Your task to perform on an android device: uninstall "Indeed Job Search" Image 0: 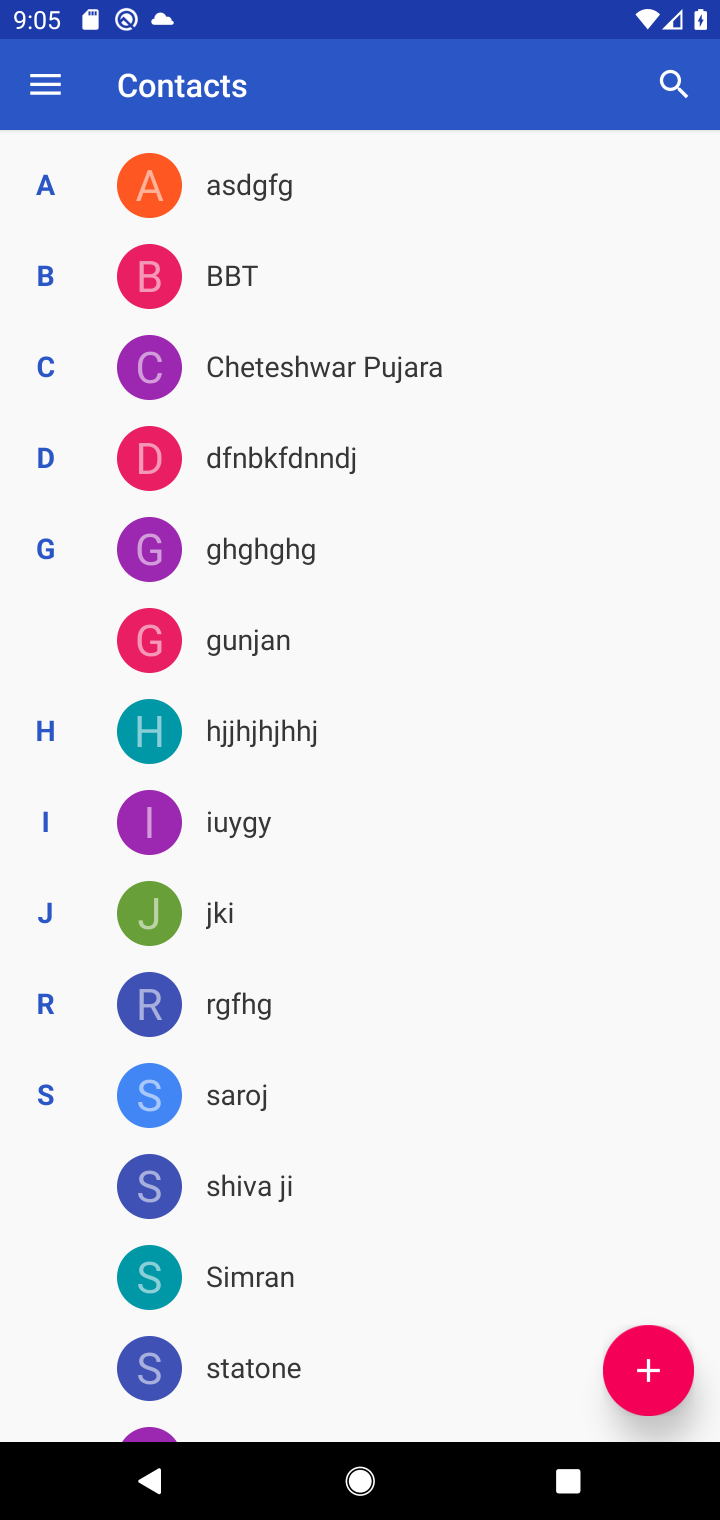
Step 0: press home button
Your task to perform on an android device: uninstall "Indeed Job Search" Image 1: 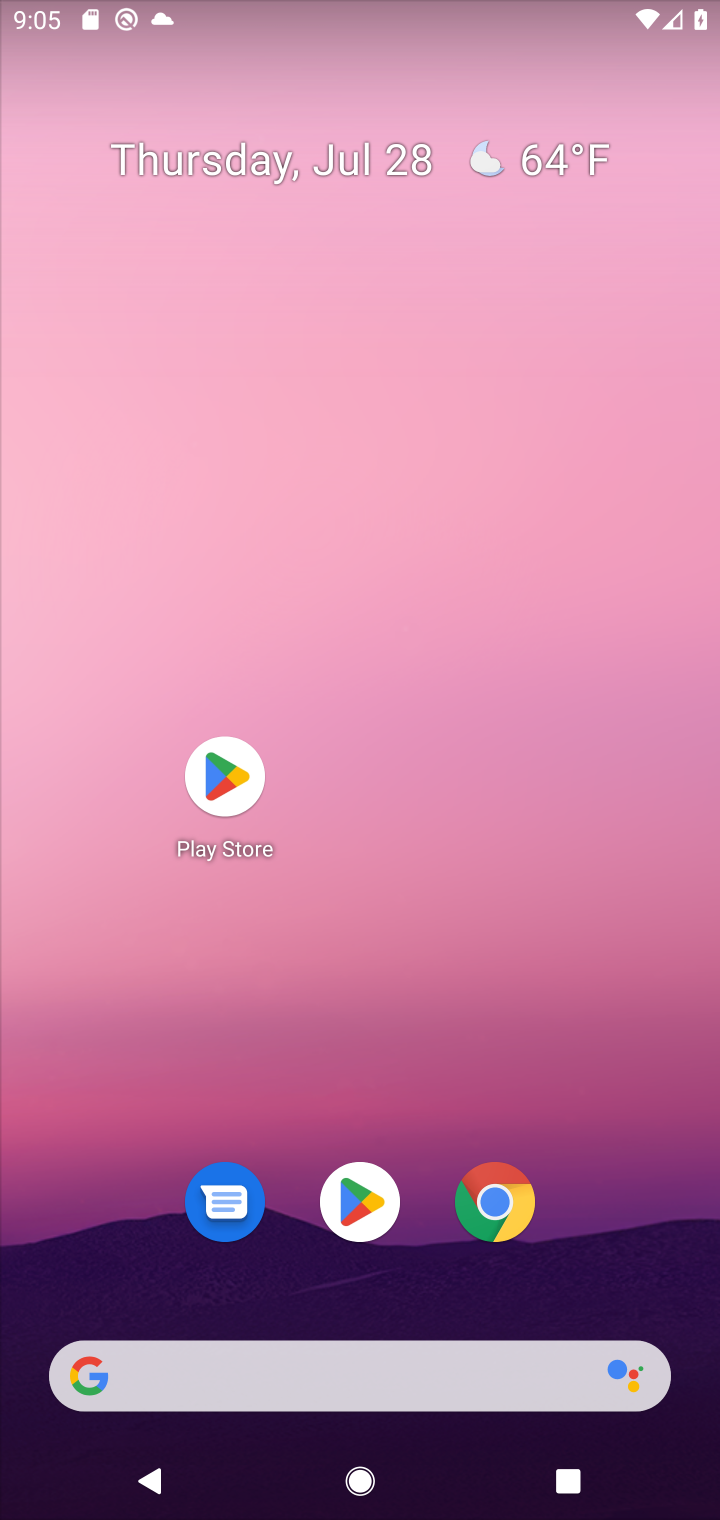
Step 1: click (350, 1214)
Your task to perform on an android device: uninstall "Indeed Job Search" Image 2: 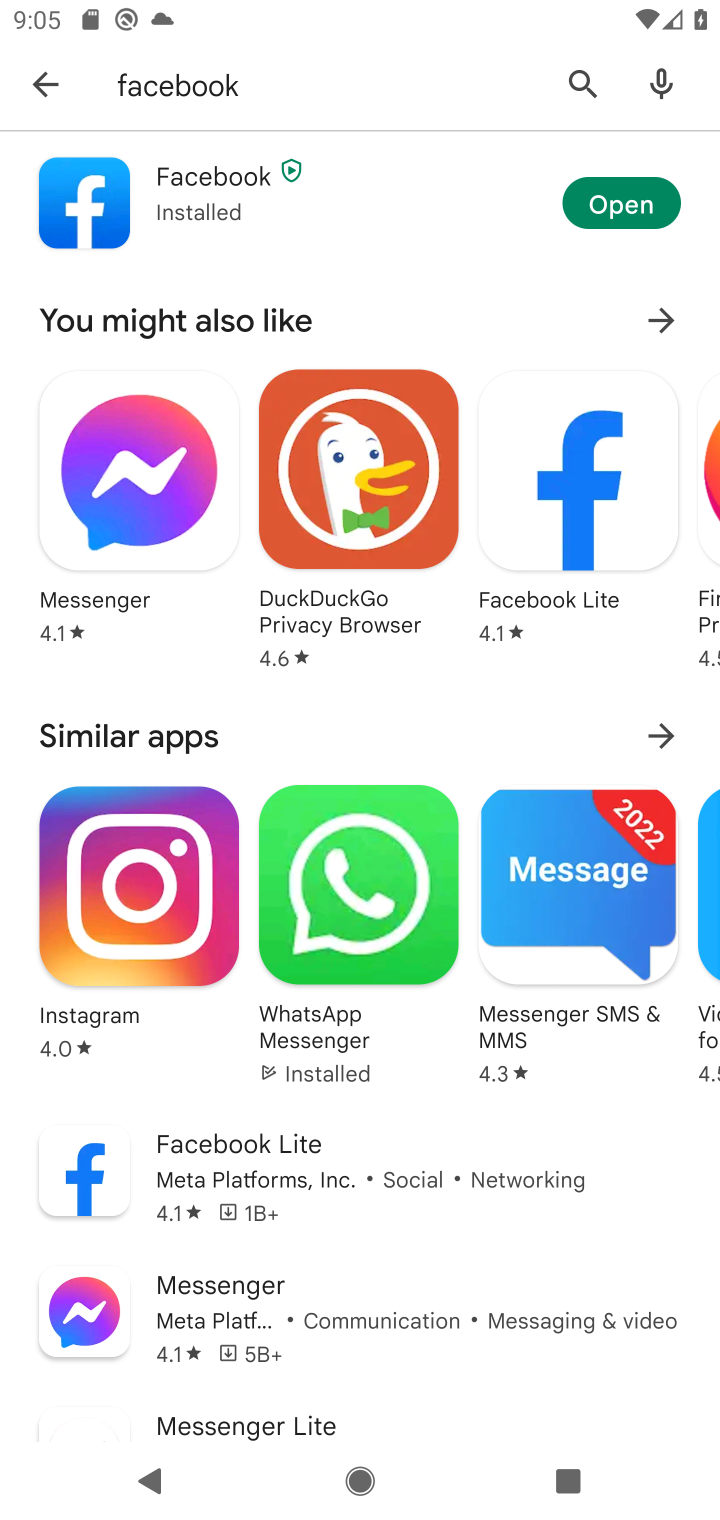
Step 2: click (570, 78)
Your task to perform on an android device: uninstall "Indeed Job Search" Image 3: 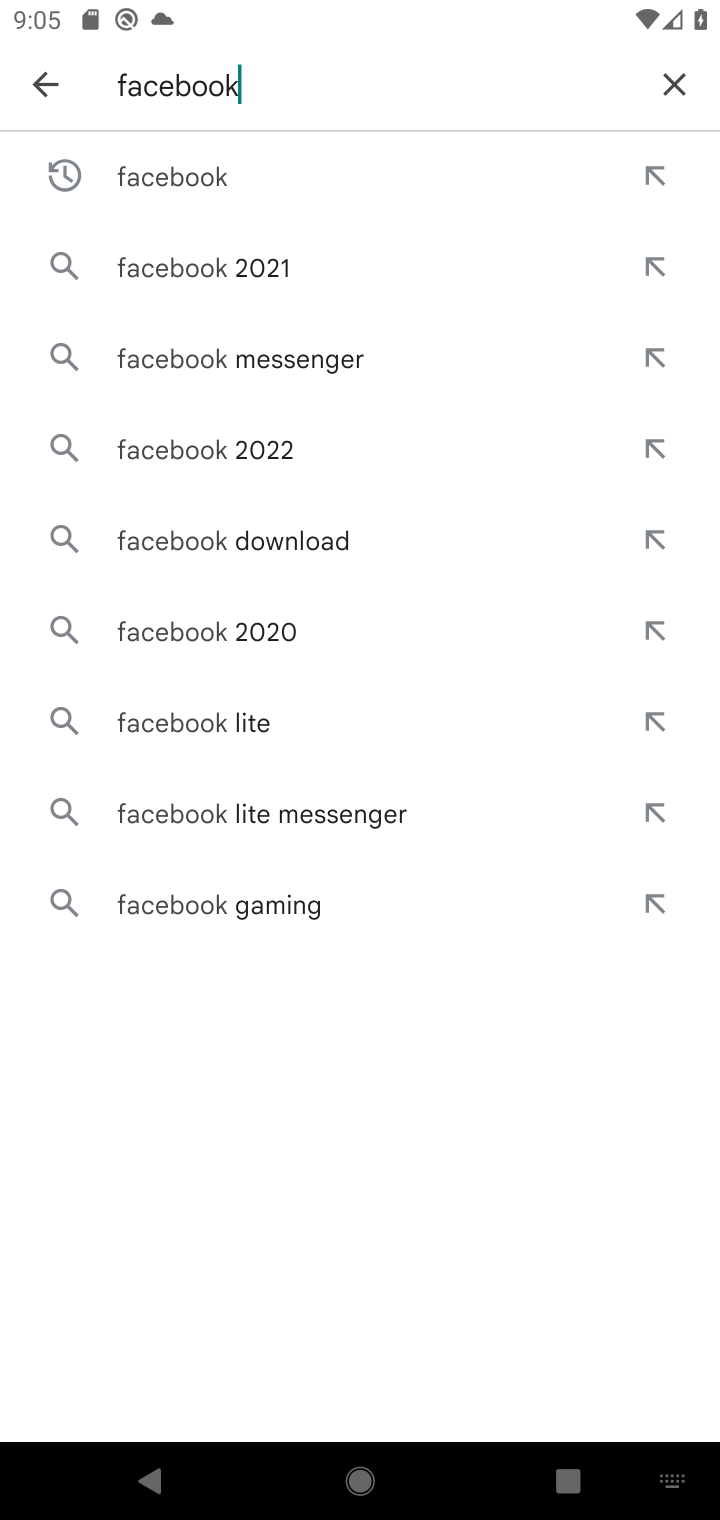
Step 3: click (668, 83)
Your task to perform on an android device: uninstall "Indeed Job Search" Image 4: 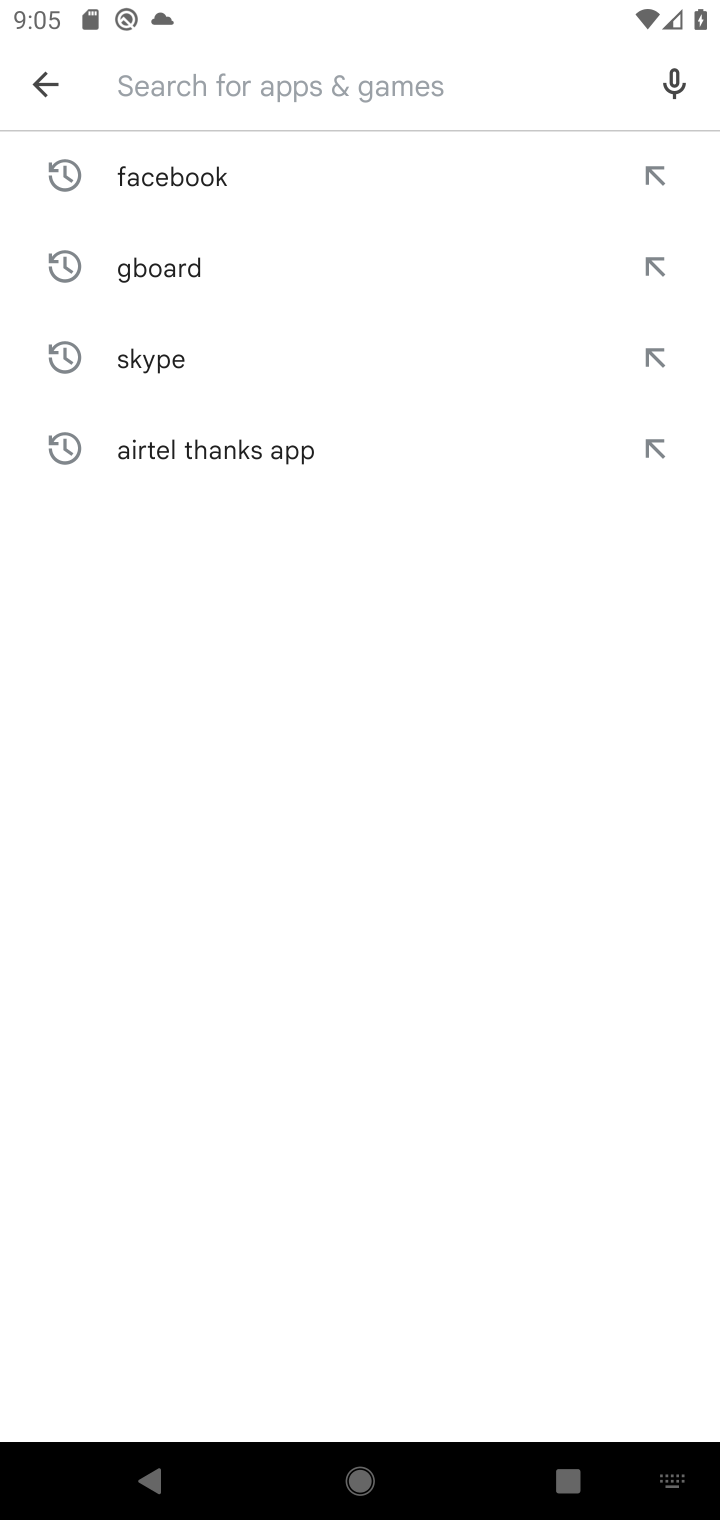
Step 4: click (331, 83)
Your task to perform on an android device: uninstall "Indeed Job Search" Image 5: 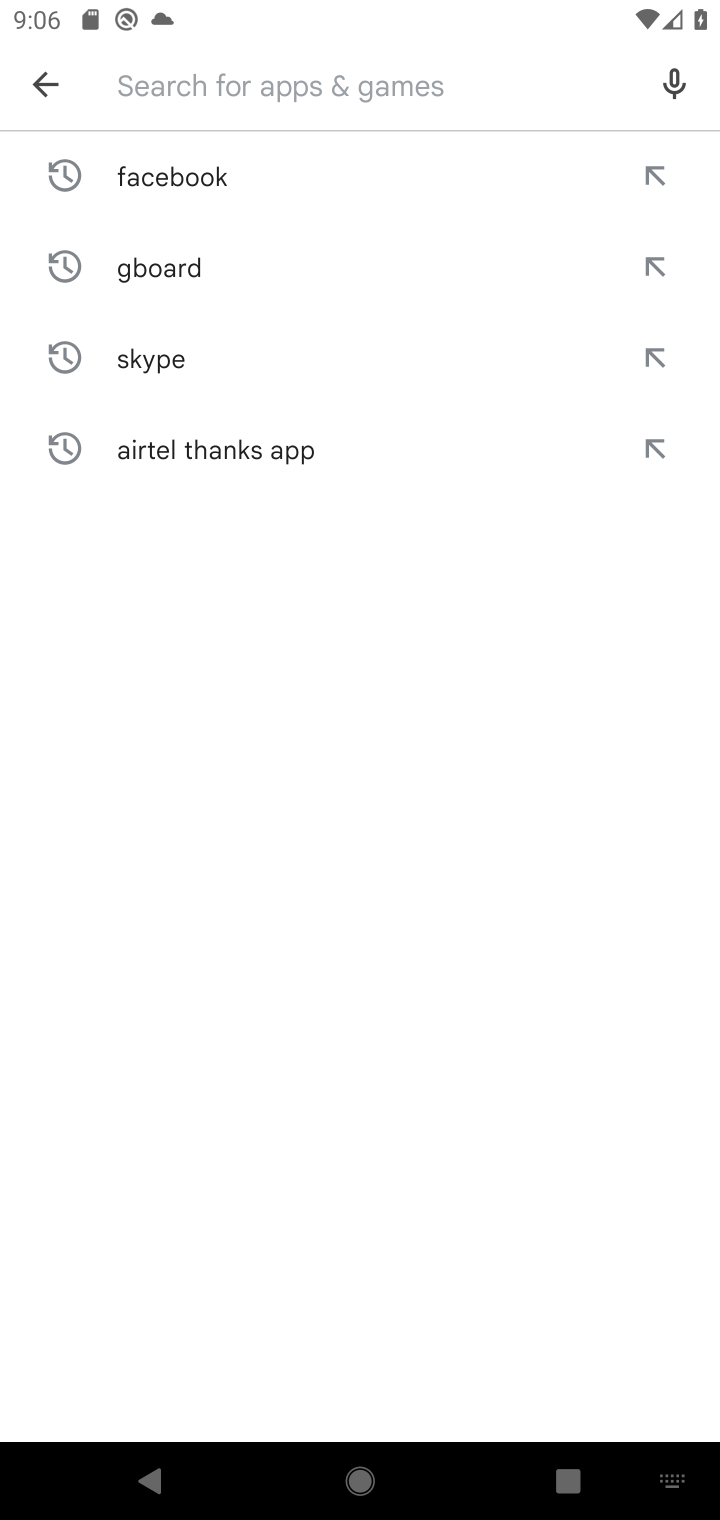
Step 5: type "indeed job search"
Your task to perform on an android device: uninstall "Indeed Job Search" Image 6: 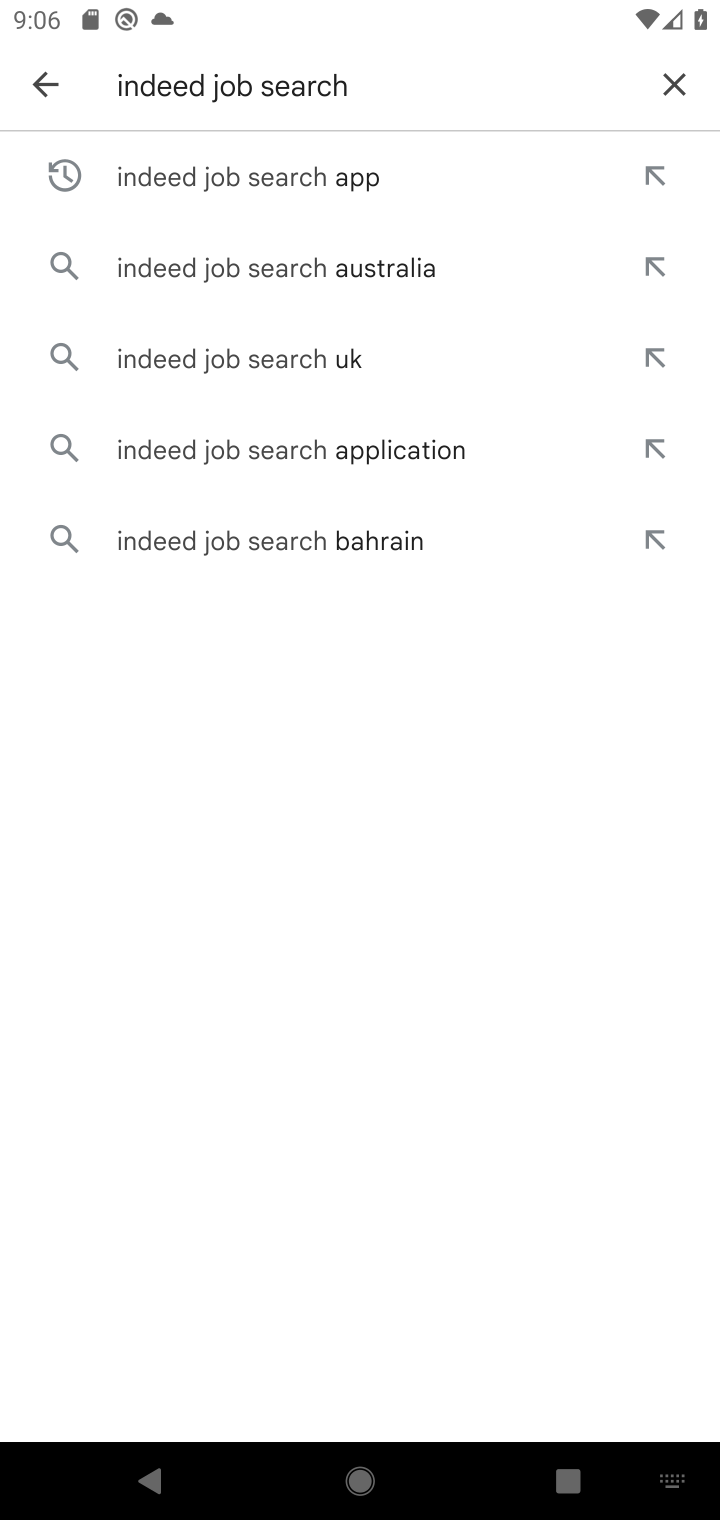
Step 6: click (287, 192)
Your task to perform on an android device: uninstall "Indeed Job Search" Image 7: 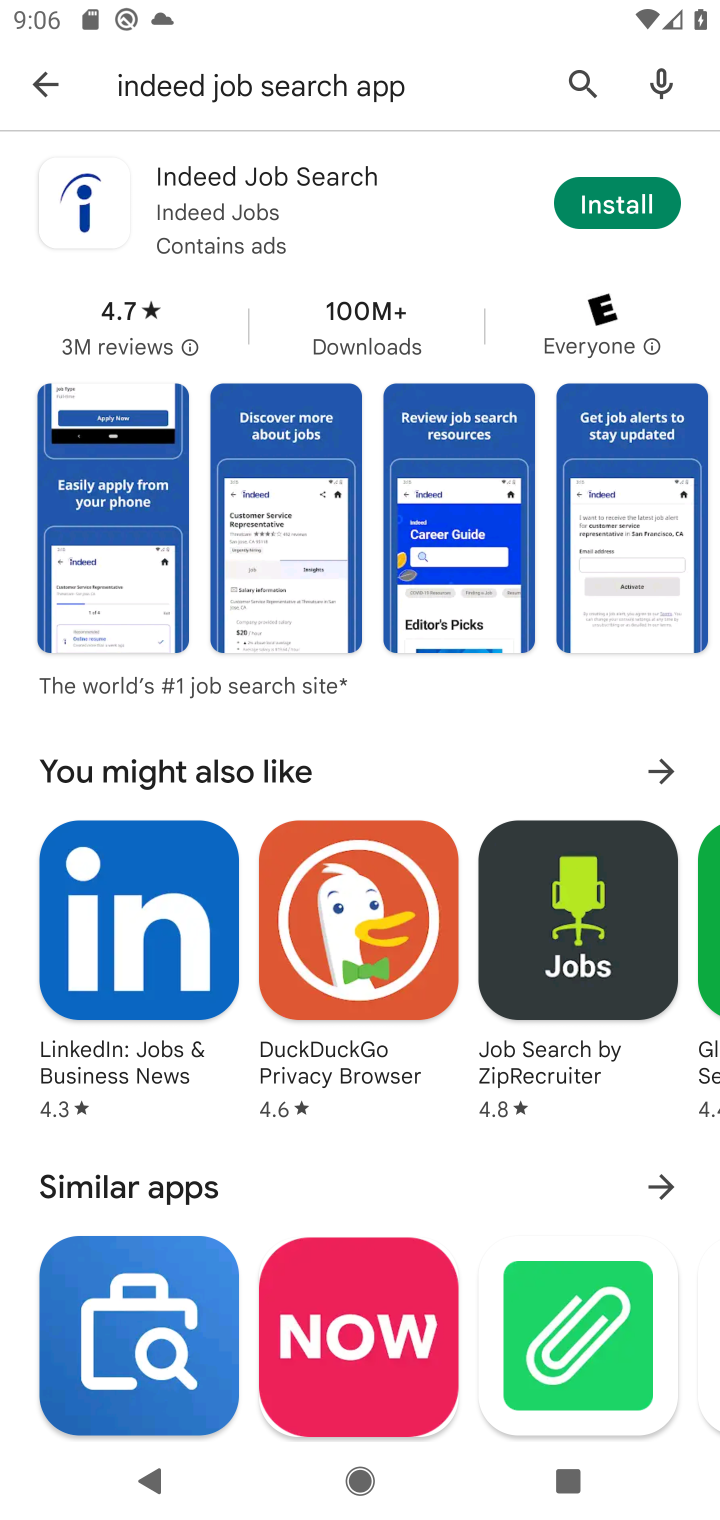
Step 7: task complete